Your task to perform on an android device: allow notifications from all sites in the chrome app Image 0: 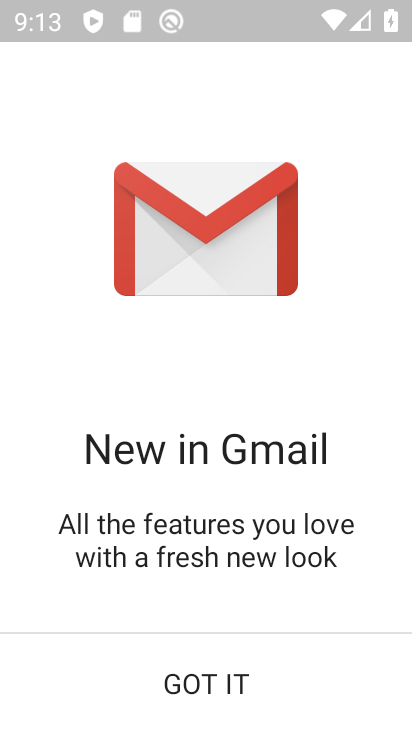
Step 0: press home button
Your task to perform on an android device: allow notifications from all sites in the chrome app Image 1: 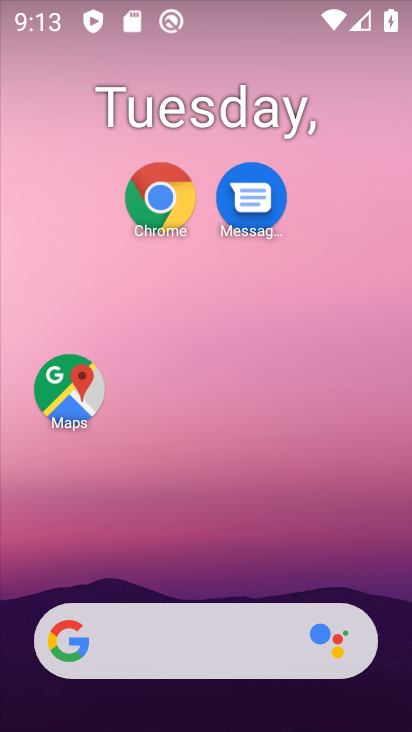
Step 1: drag from (204, 554) to (225, 26)
Your task to perform on an android device: allow notifications from all sites in the chrome app Image 2: 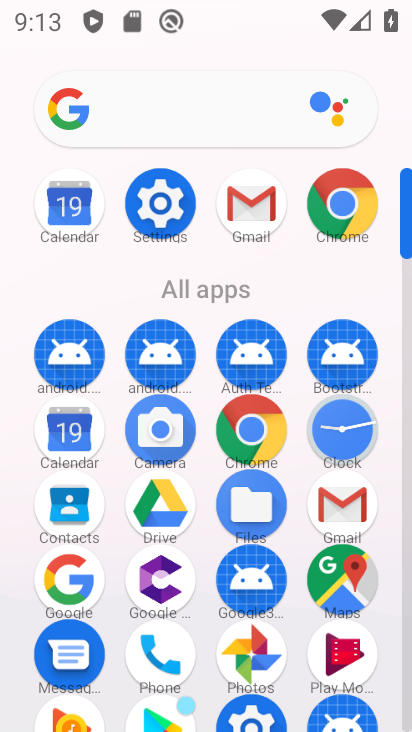
Step 2: click (248, 420)
Your task to perform on an android device: allow notifications from all sites in the chrome app Image 3: 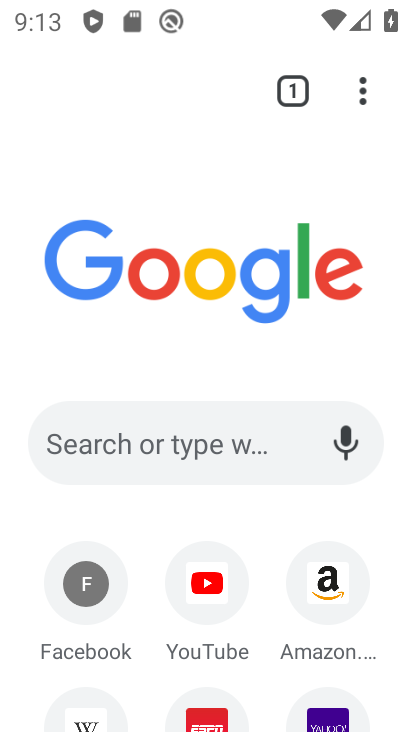
Step 3: click (355, 99)
Your task to perform on an android device: allow notifications from all sites in the chrome app Image 4: 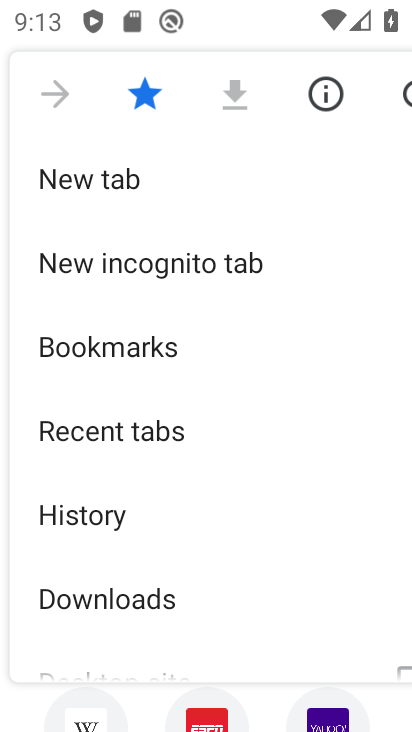
Step 4: drag from (285, 570) to (231, 189)
Your task to perform on an android device: allow notifications from all sites in the chrome app Image 5: 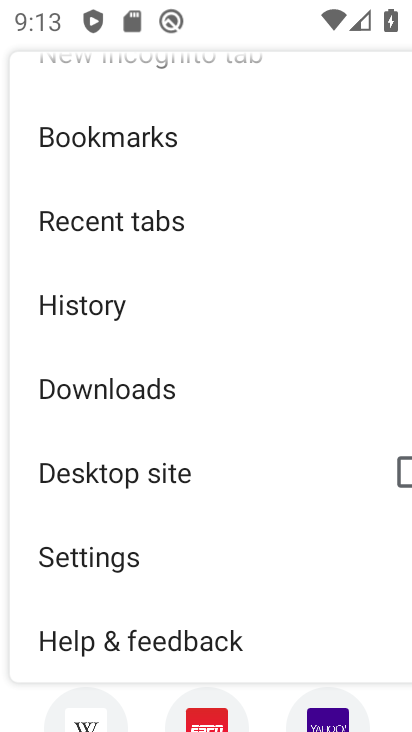
Step 5: click (98, 539)
Your task to perform on an android device: allow notifications from all sites in the chrome app Image 6: 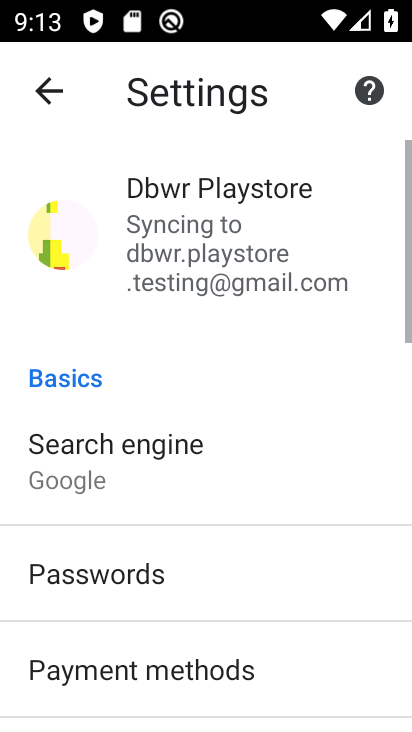
Step 6: drag from (137, 576) to (113, 148)
Your task to perform on an android device: allow notifications from all sites in the chrome app Image 7: 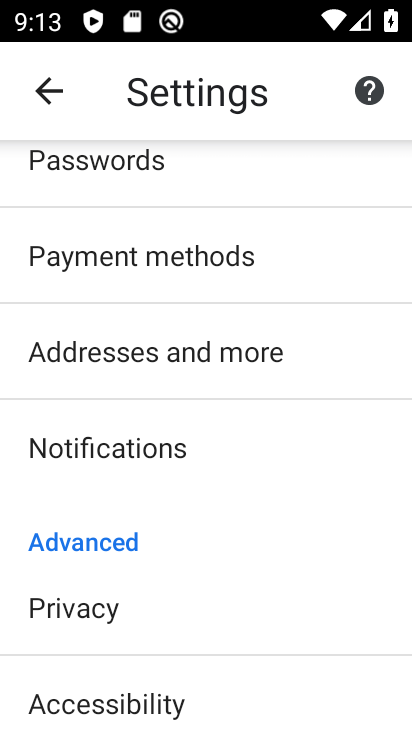
Step 7: drag from (131, 643) to (101, 264)
Your task to perform on an android device: allow notifications from all sites in the chrome app Image 8: 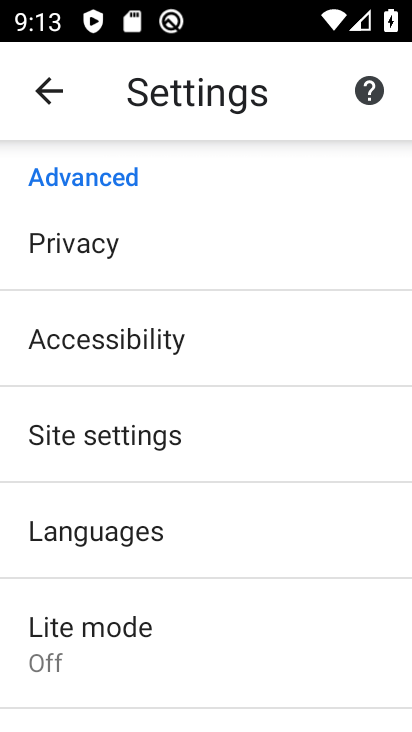
Step 8: click (110, 459)
Your task to perform on an android device: allow notifications from all sites in the chrome app Image 9: 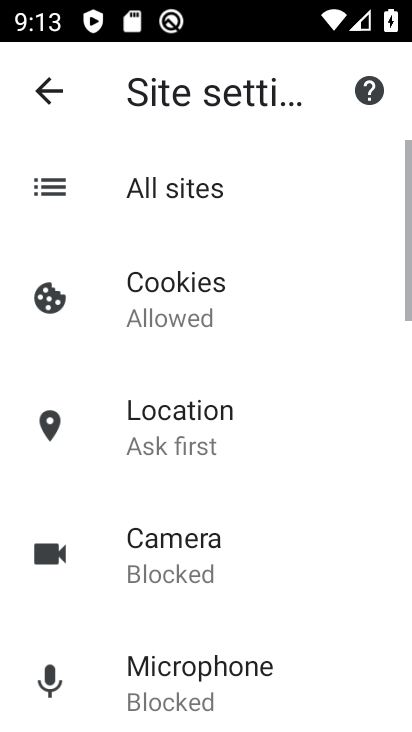
Step 9: drag from (163, 552) to (136, 282)
Your task to perform on an android device: allow notifications from all sites in the chrome app Image 10: 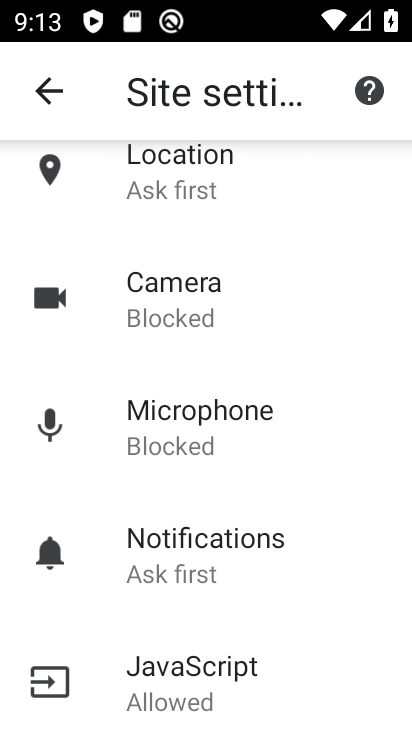
Step 10: click (172, 541)
Your task to perform on an android device: allow notifications from all sites in the chrome app Image 11: 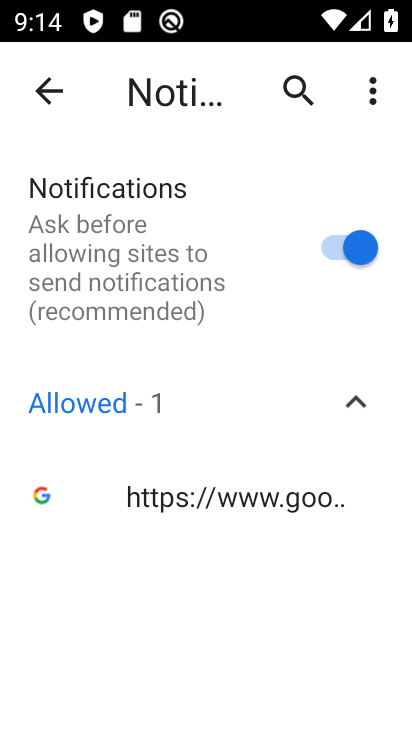
Step 11: task complete